Your task to perform on an android device: Show me popular videos on Youtube Image 0: 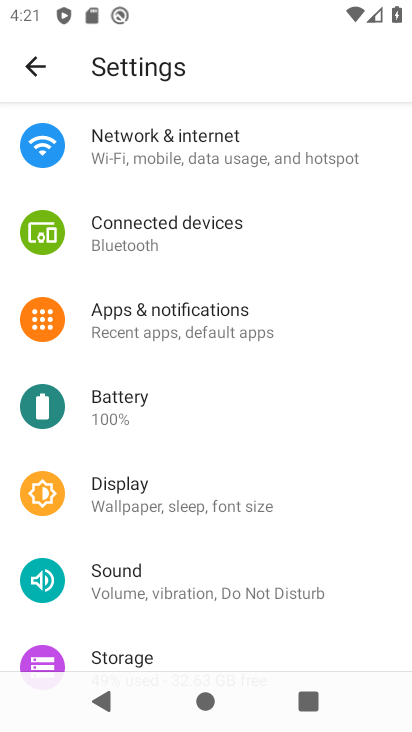
Step 0: drag from (258, 565) to (268, 156)
Your task to perform on an android device: Show me popular videos on Youtube Image 1: 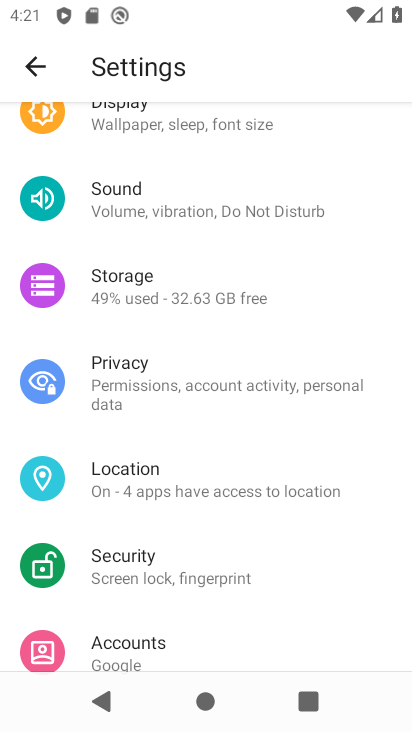
Step 1: drag from (226, 543) to (212, 213)
Your task to perform on an android device: Show me popular videos on Youtube Image 2: 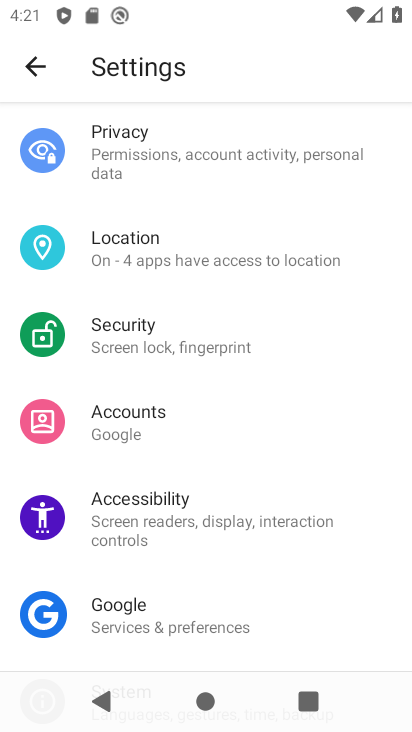
Step 2: drag from (223, 193) to (242, 460)
Your task to perform on an android device: Show me popular videos on Youtube Image 3: 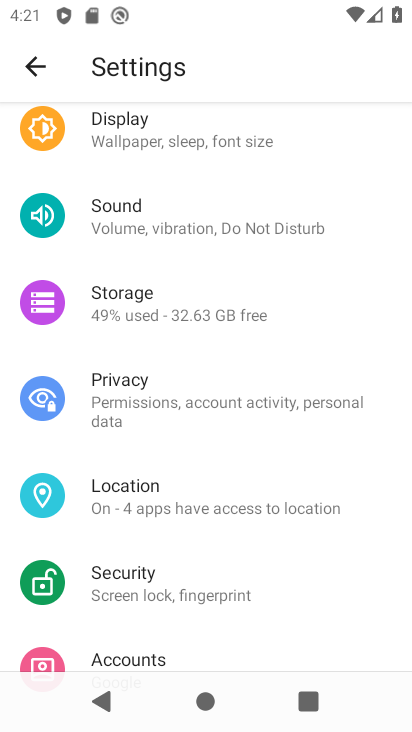
Step 3: drag from (267, 372) to (266, 450)
Your task to perform on an android device: Show me popular videos on Youtube Image 4: 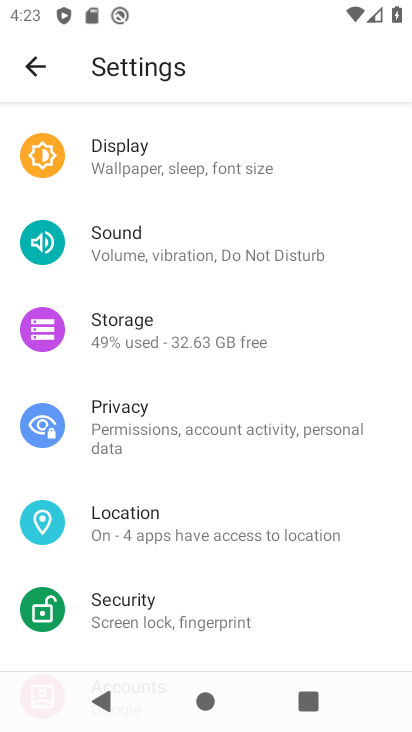
Step 4: drag from (254, 577) to (262, 123)
Your task to perform on an android device: Show me popular videos on Youtube Image 5: 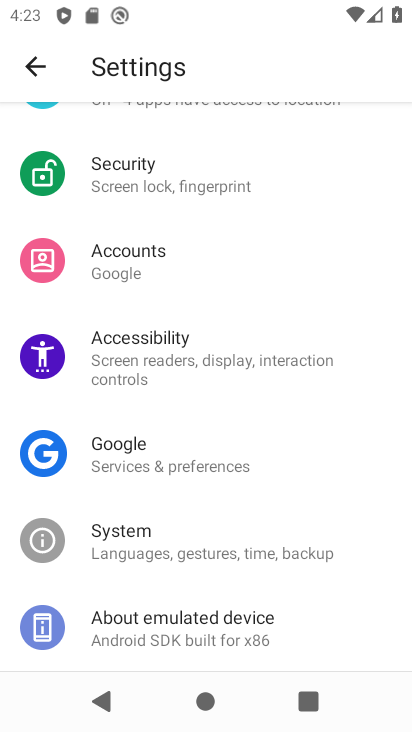
Step 5: drag from (230, 469) to (233, 166)
Your task to perform on an android device: Show me popular videos on Youtube Image 6: 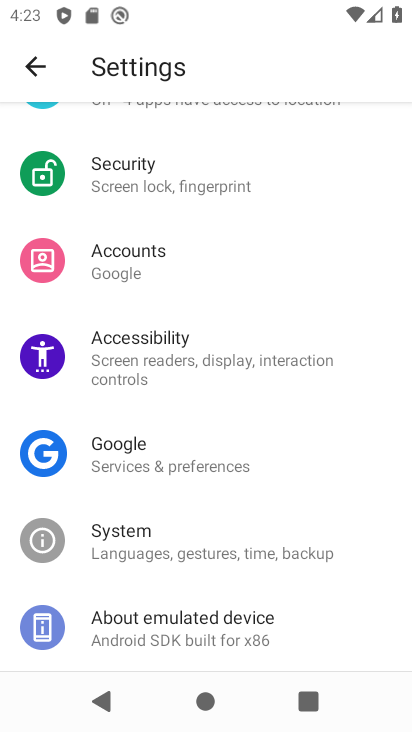
Step 6: press home button
Your task to perform on an android device: Show me popular videos on Youtube Image 7: 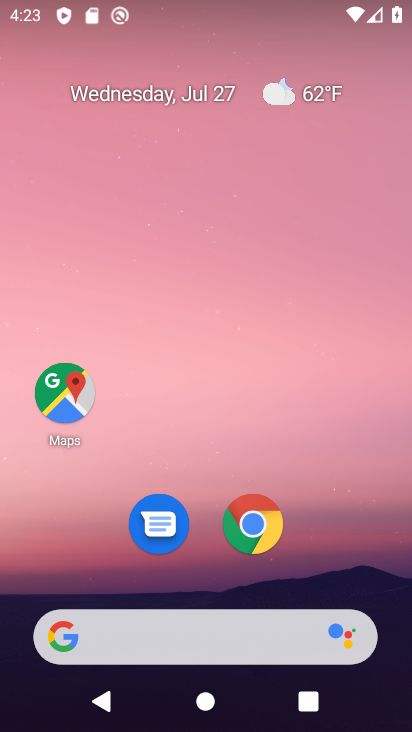
Step 7: drag from (206, 481) to (272, 23)
Your task to perform on an android device: Show me popular videos on Youtube Image 8: 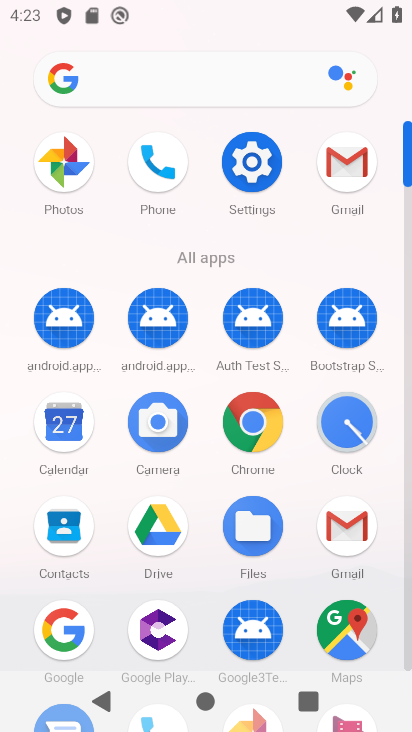
Step 8: drag from (219, 475) to (219, 69)
Your task to perform on an android device: Show me popular videos on Youtube Image 9: 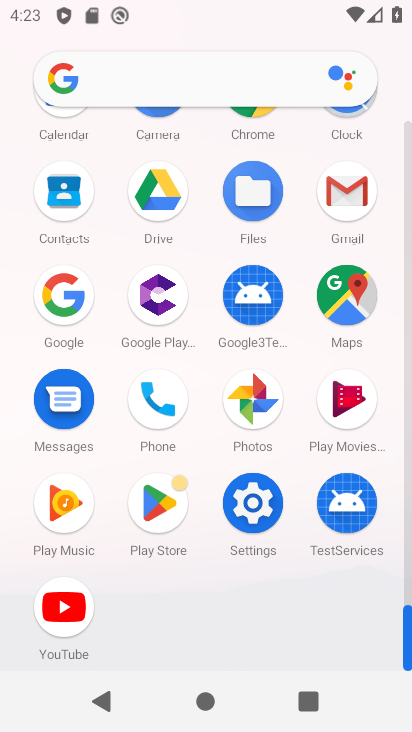
Step 9: click (72, 606)
Your task to perform on an android device: Show me popular videos on Youtube Image 10: 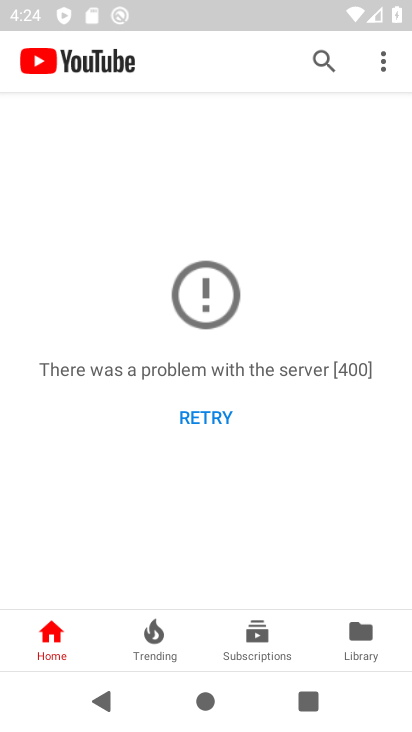
Step 10: task complete